Your task to perform on an android device: turn off priority inbox in the gmail app Image 0: 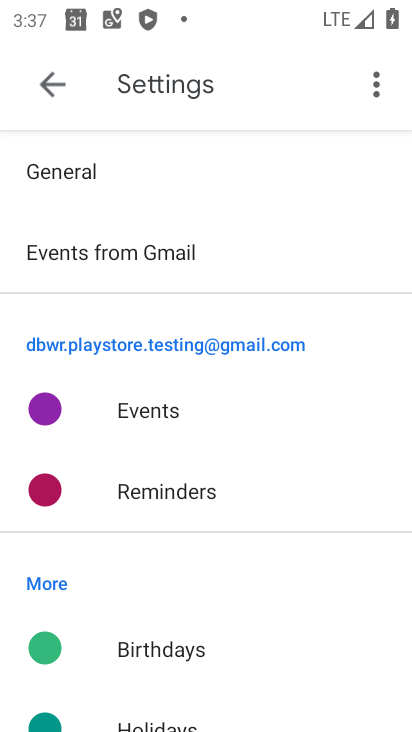
Step 0: press home button
Your task to perform on an android device: turn off priority inbox in the gmail app Image 1: 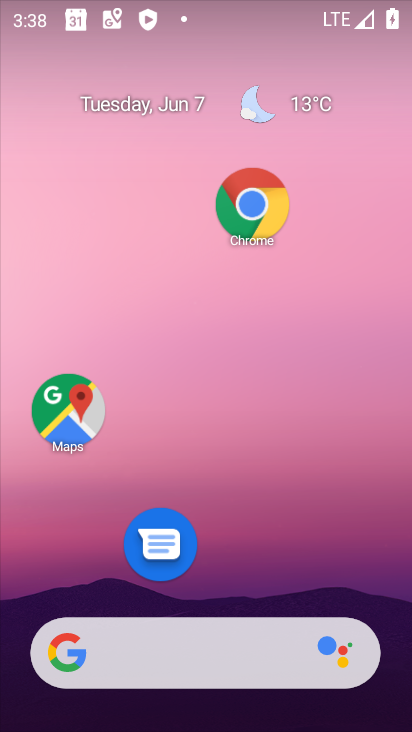
Step 1: drag from (227, 578) to (232, 29)
Your task to perform on an android device: turn off priority inbox in the gmail app Image 2: 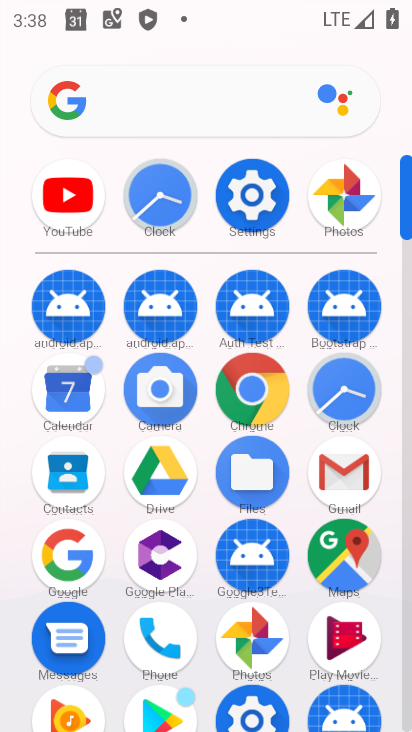
Step 2: click (339, 467)
Your task to perform on an android device: turn off priority inbox in the gmail app Image 3: 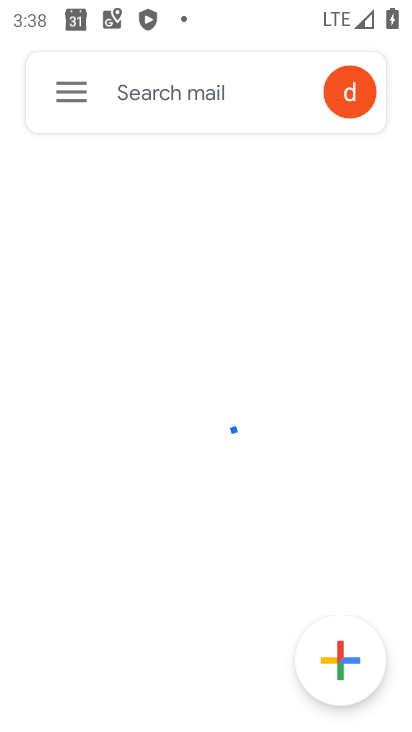
Step 3: click (68, 90)
Your task to perform on an android device: turn off priority inbox in the gmail app Image 4: 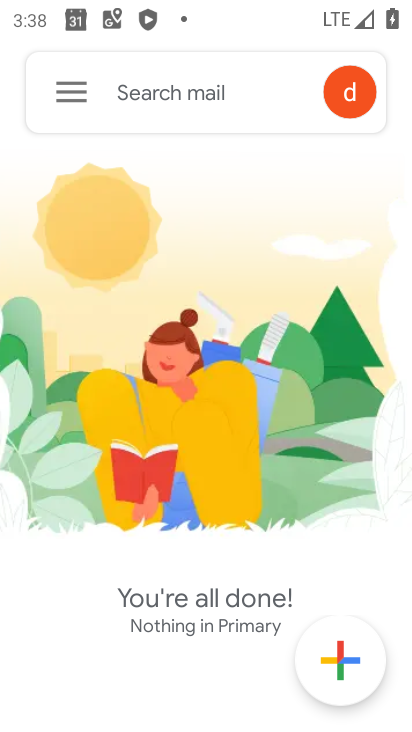
Step 4: click (72, 80)
Your task to perform on an android device: turn off priority inbox in the gmail app Image 5: 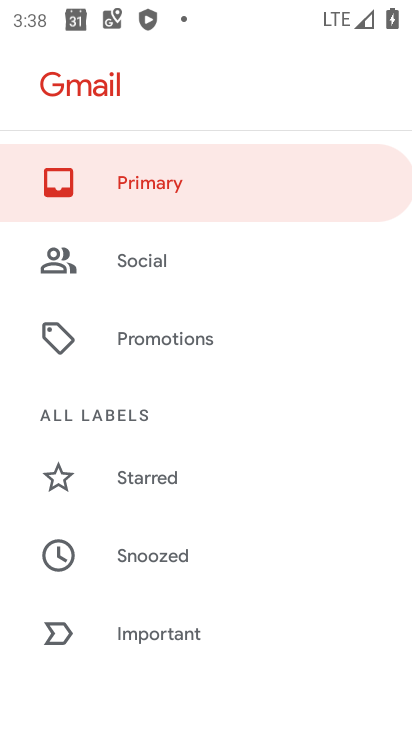
Step 5: drag from (220, 640) to (225, 53)
Your task to perform on an android device: turn off priority inbox in the gmail app Image 6: 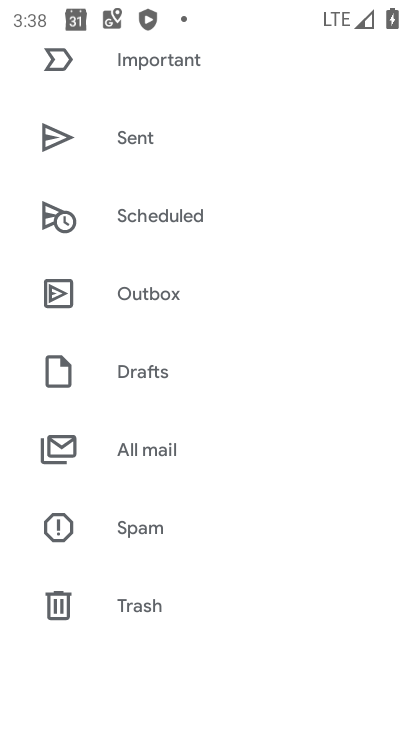
Step 6: drag from (174, 597) to (218, 86)
Your task to perform on an android device: turn off priority inbox in the gmail app Image 7: 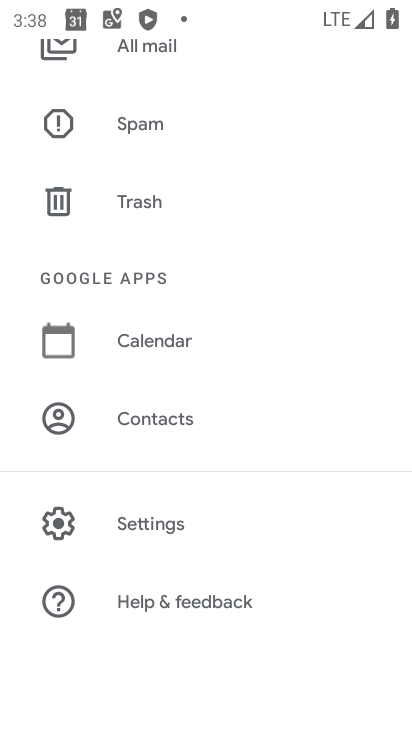
Step 7: click (194, 516)
Your task to perform on an android device: turn off priority inbox in the gmail app Image 8: 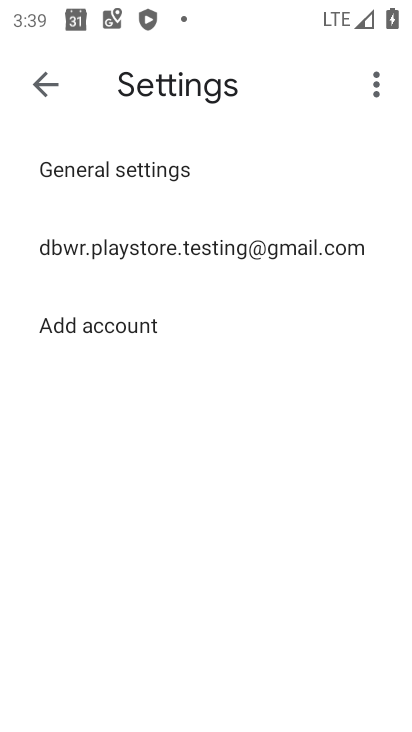
Step 8: click (231, 242)
Your task to perform on an android device: turn off priority inbox in the gmail app Image 9: 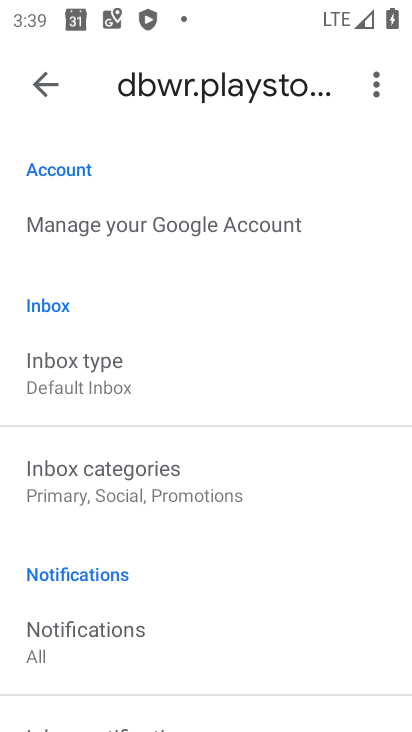
Step 9: click (159, 372)
Your task to perform on an android device: turn off priority inbox in the gmail app Image 10: 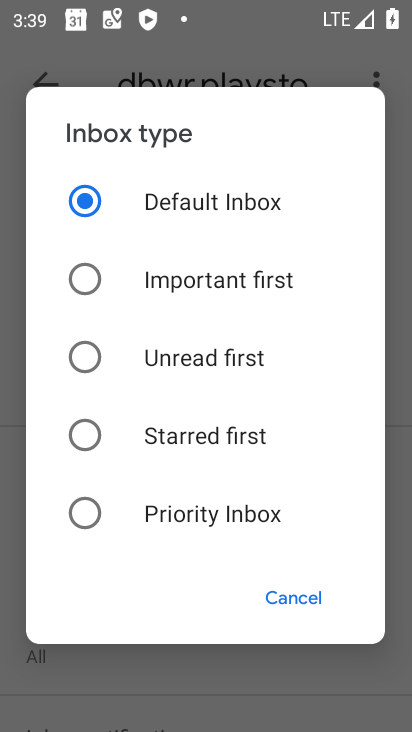
Step 10: click (84, 436)
Your task to perform on an android device: turn off priority inbox in the gmail app Image 11: 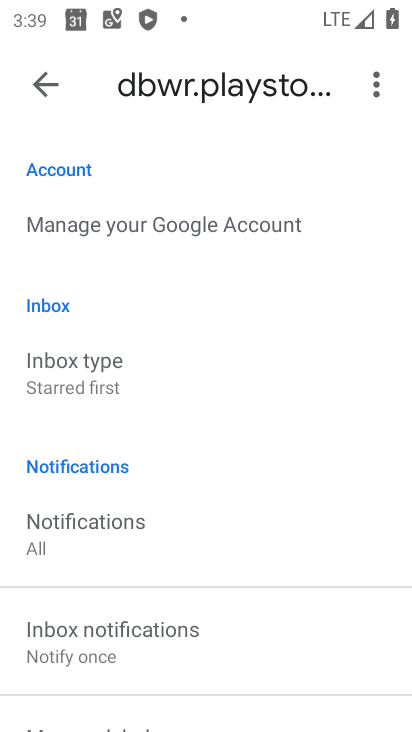
Step 11: task complete